Your task to perform on an android device: move an email to a new category in the gmail app Image 0: 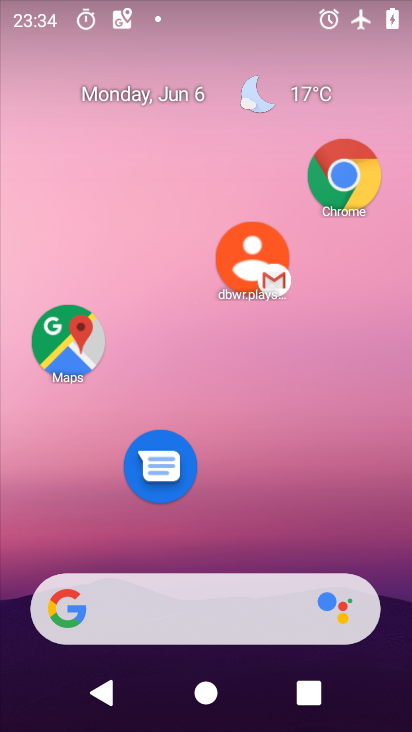
Step 0: click (257, 150)
Your task to perform on an android device: move an email to a new category in the gmail app Image 1: 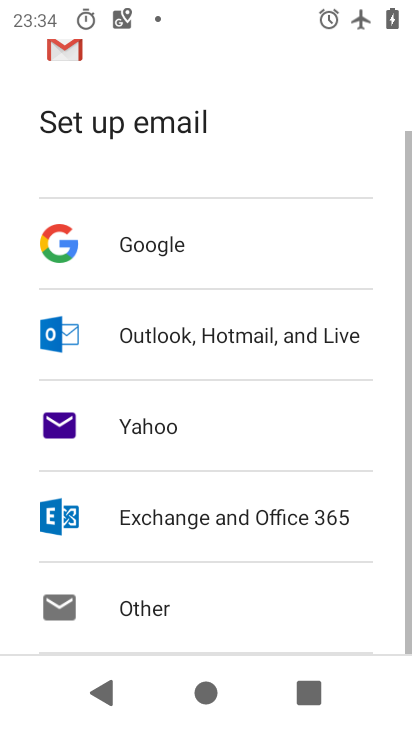
Step 1: drag from (224, 529) to (259, 134)
Your task to perform on an android device: move an email to a new category in the gmail app Image 2: 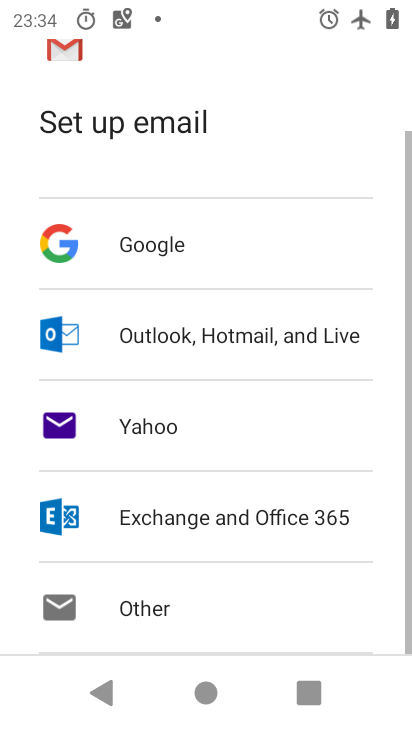
Step 2: drag from (166, 597) to (305, 102)
Your task to perform on an android device: move an email to a new category in the gmail app Image 3: 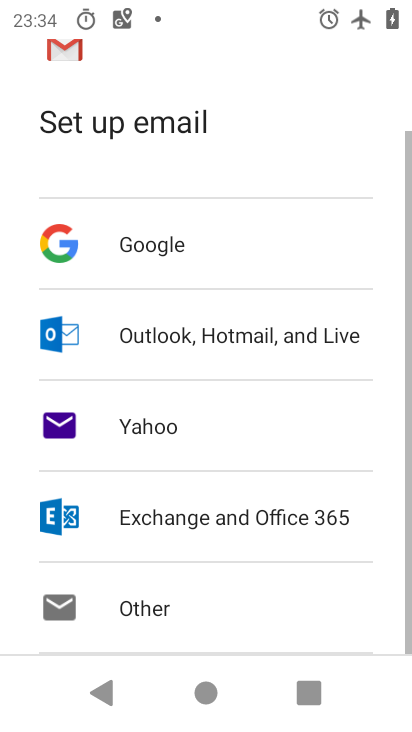
Step 3: press home button
Your task to perform on an android device: move an email to a new category in the gmail app Image 4: 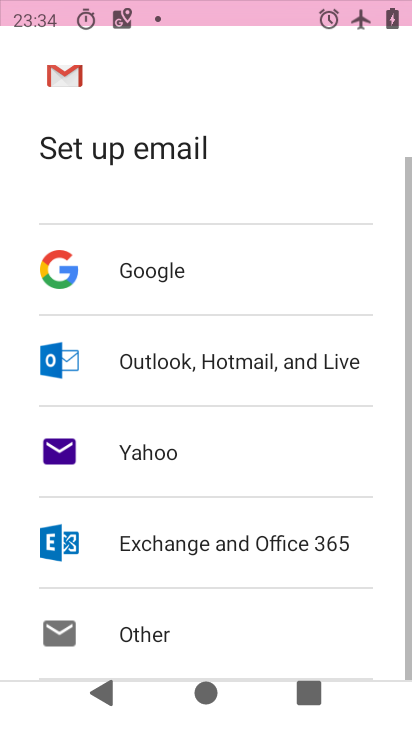
Step 4: drag from (291, 583) to (270, 89)
Your task to perform on an android device: move an email to a new category in the gmail app Image 5: 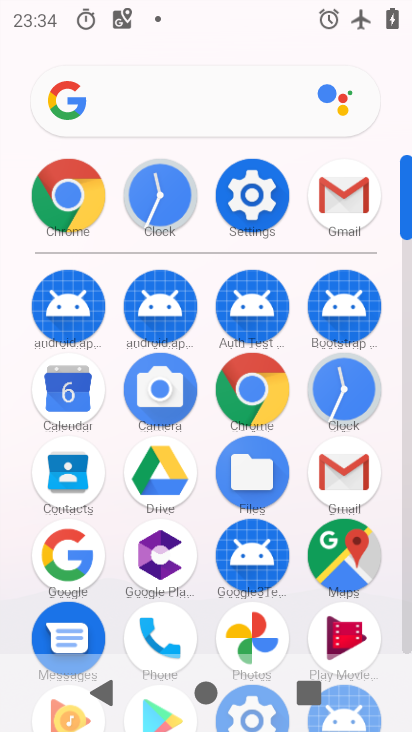
Step 5: click (354, 473)
Your task to perform on an android device: move an email to a new category in the gmail app Image 6: 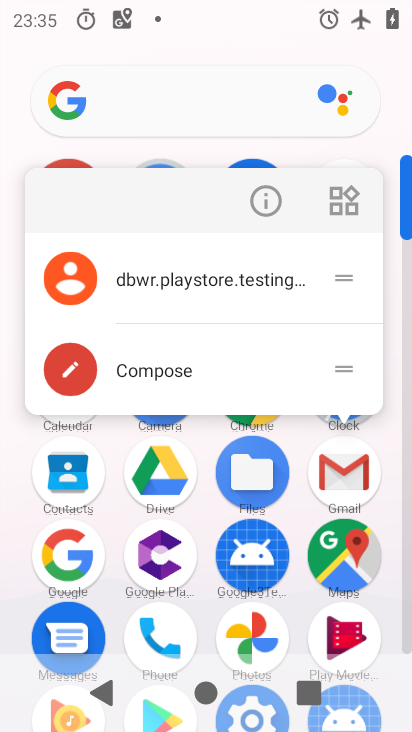
Step 6: click (254, 203)
Your task to perform on an android device: move an email to a new category in the gmail app Image 7: 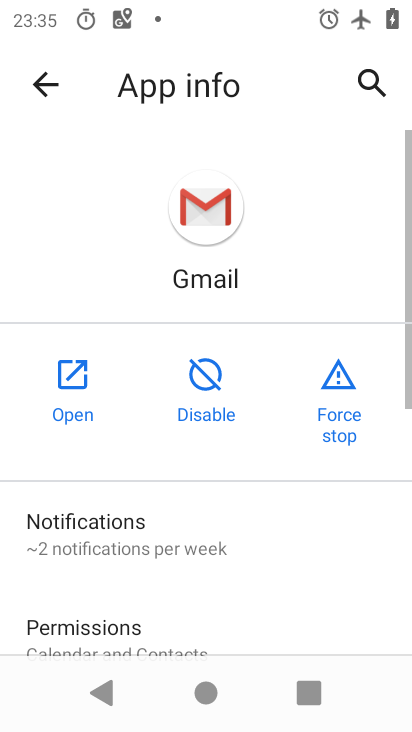
Step 7: click (82, 367)
Your task to perform on an android device: move an email to a new category in the gmail app Image 8: 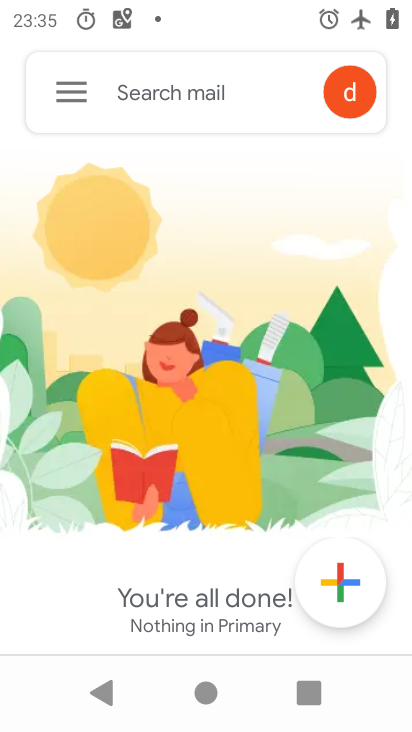
Step 8: click (89, 86)
Your task to perform on an android device: move an email to a new category in the gmail app Image 9: 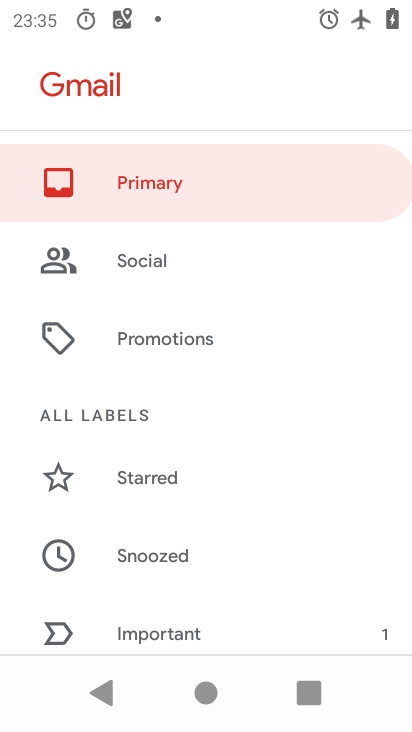
Step 9: task complete